Your task to perform on an android device: turn off smart reply in the gmail app Image 0: 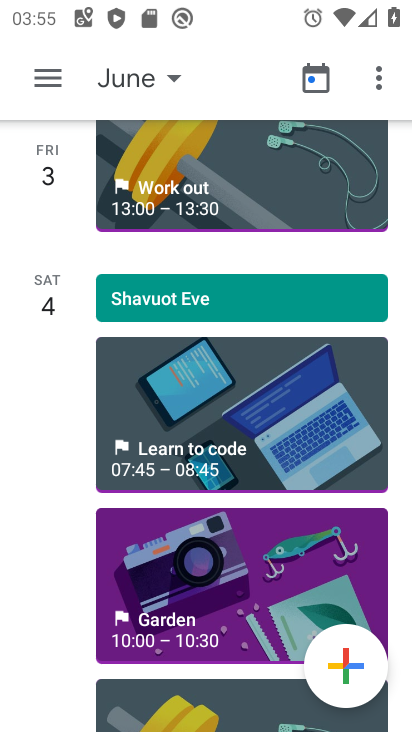
Step 0: press home button
Your task to perform on an android device: turn off smart reply in the gmail app Image 1: 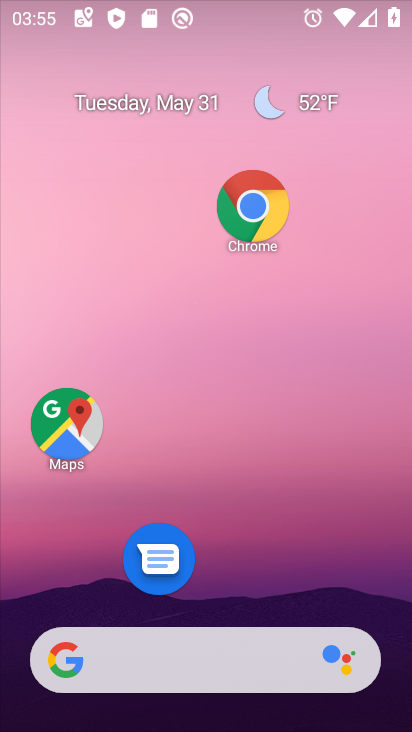
Step 1: drag from (229, 554) to (231, 194)
Your task to perform on an android device: turn off smart reply in the gmail app Image 2: 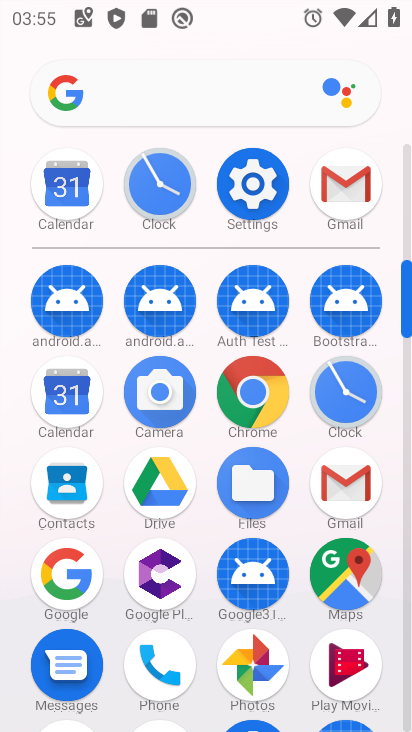
Step 2: click (337, 204)
Your task to perform on an android device: turn off smart reply in the gmail app Image 3: 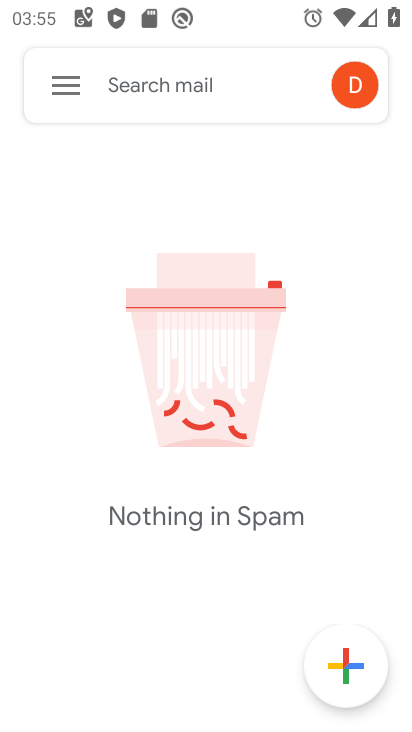
Step 3: click (69, 76)
Your task to perform on an android device: turn off smart reply in the gmail app Image 4: 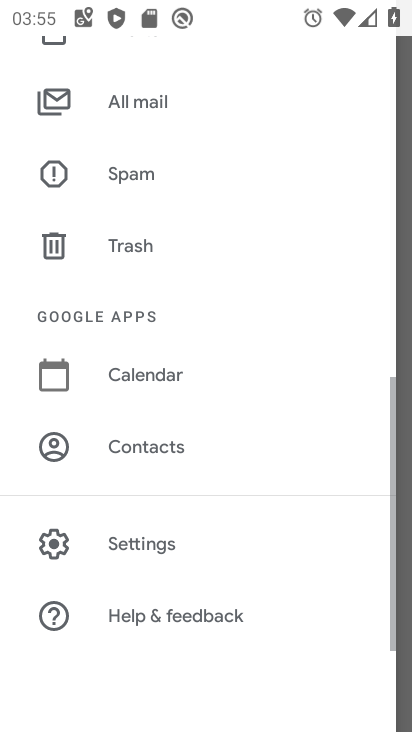
Step 4: click (165, 536)
Your task to perform on an android device: turn off smart reply in the gmail app Image 5: 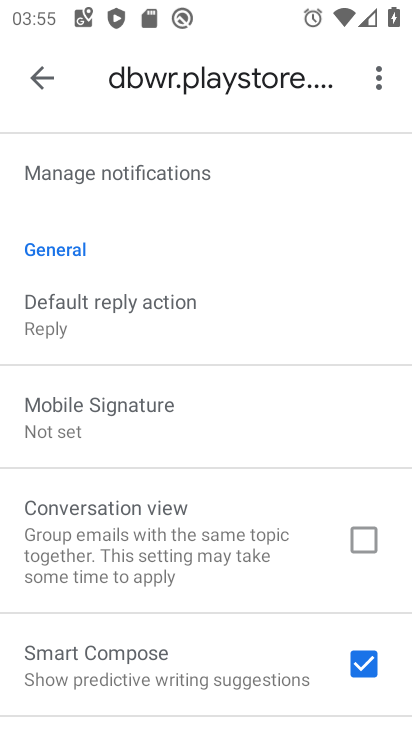
Step 5: drag from (165, 536) to (275, 174)
Your task to perform on an android device: turn off smart reply in the gmail app Image 6: 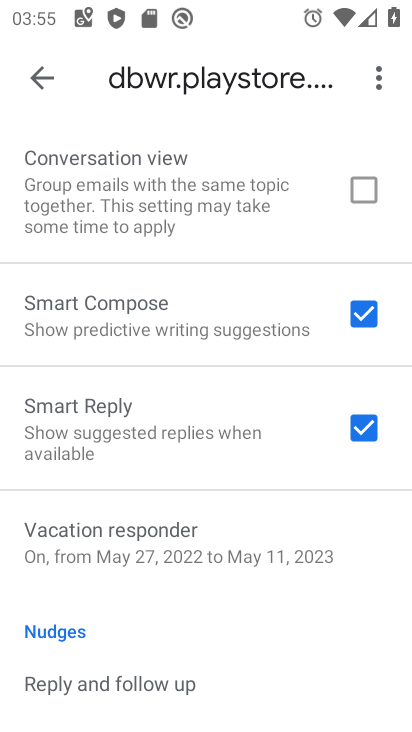
Step 6: click (355, 430)
Your task to perform on an android device: turn off smart reply in the gmail app Image 7: 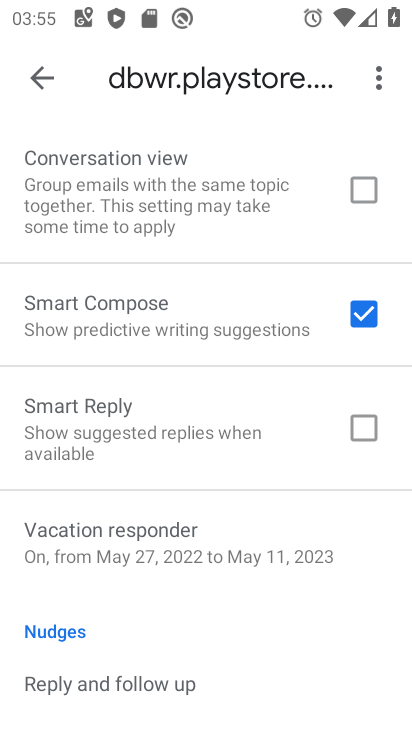
Step 7: task complete